Your task to perform on an android device: check data usage Image 0: 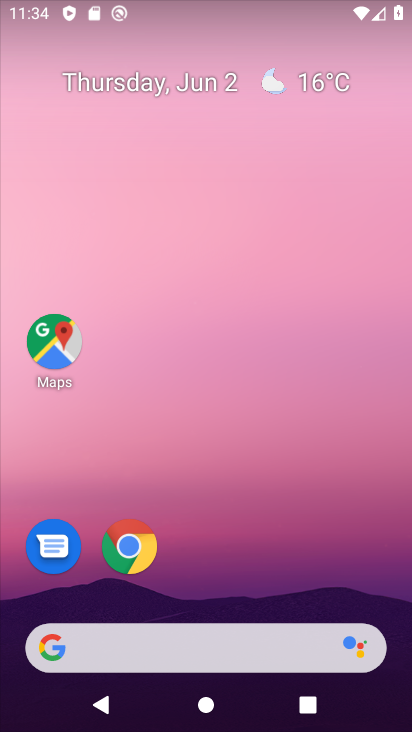
Step 0: click (275, 206)
Your task to perform on an android device: check data usage Image 1: 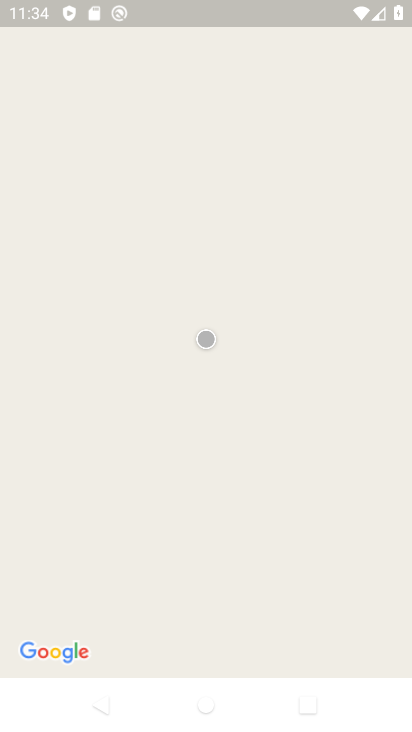
Step 1: press home button
Your task to perform on an android device: check data usage Image 2: 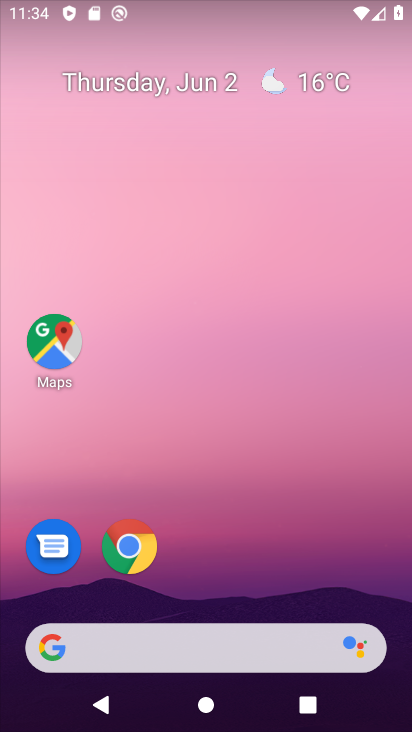
Step 2: drag from (372, 568) to (364, 64)
Your task to perform on an android device: check data usage Image 3: 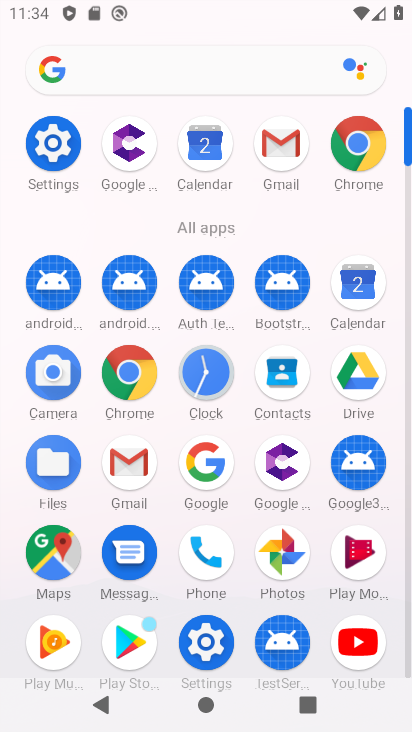
Step 3: click (45, 155)
Your task to perform on an android device: check data usage Image 4: 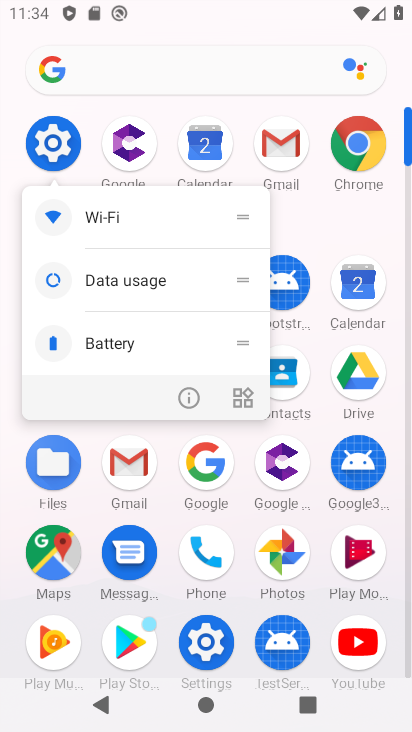
Step 4: click (48, 150)
Your task to perform on an android device: check data usage Image 5: 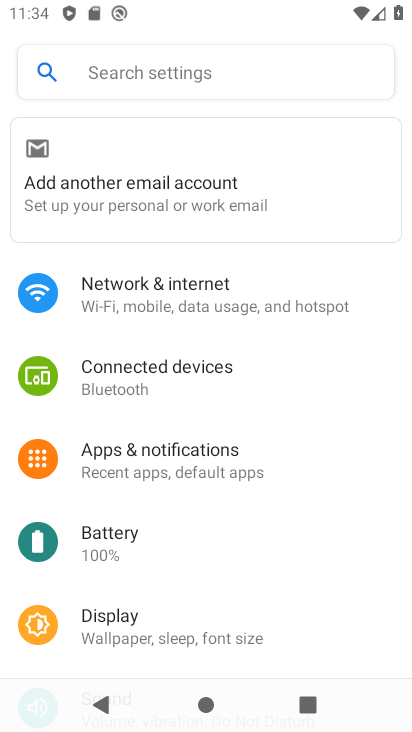
Step 5: click (214, 305)
Your task to perform on an android device: check data usage Image 6: 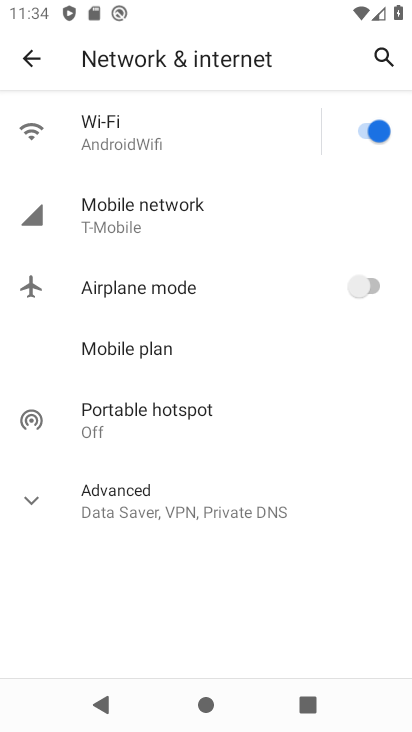
Step 6: click (187, 204)
Your task to perform on an android device: check data usage Image 7: 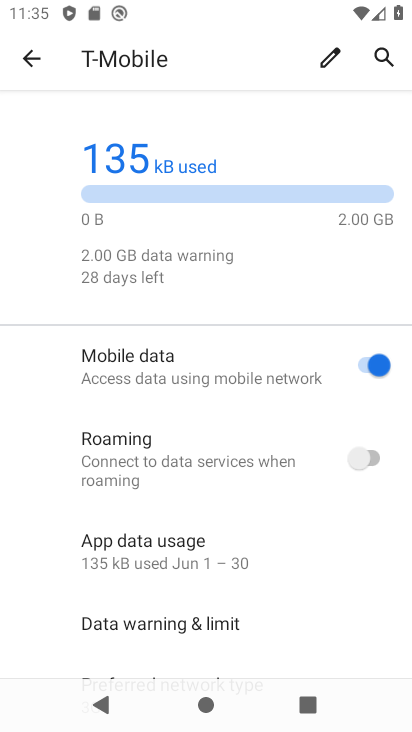
Step 7: task complete